Your task to perform on an android device: turn on priority inbox in the gmail app Image 0: 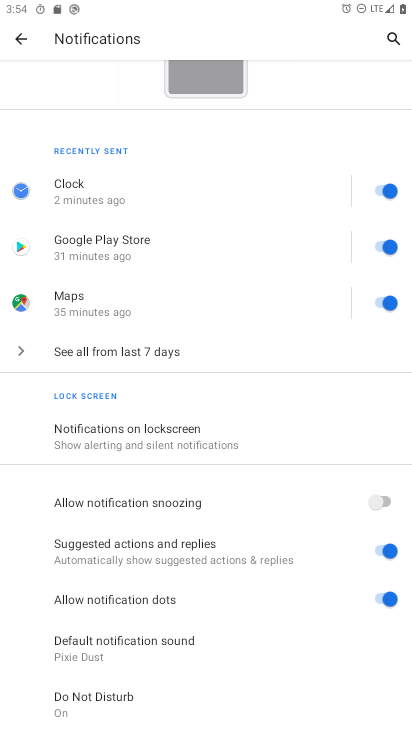
Step 0: press home button
Your task to perform on an android device: turn on priority inbox in the gmail app Image 1: 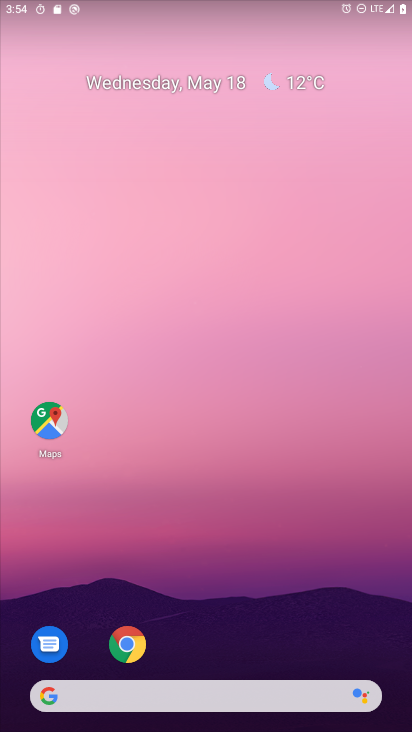
Step 1: drag from (393, 675) to (370, 139)
Your task to perform on an android device: turn on priority inbox in the gmail app Image 2: 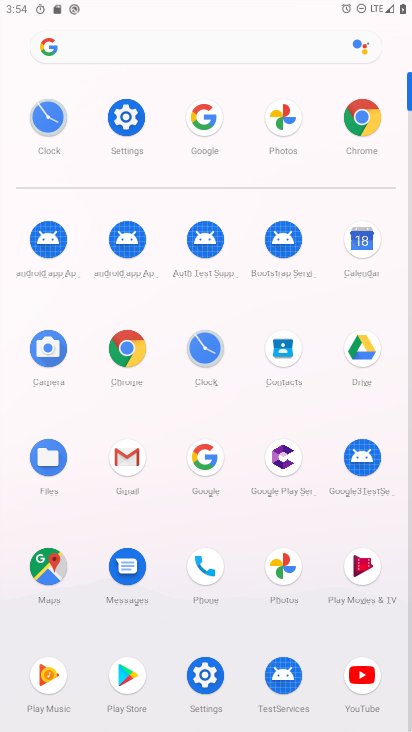
Step 2: click (128, 459)
Your task to perform on an android device: turn on priority inbox in the gmail app Image 3: 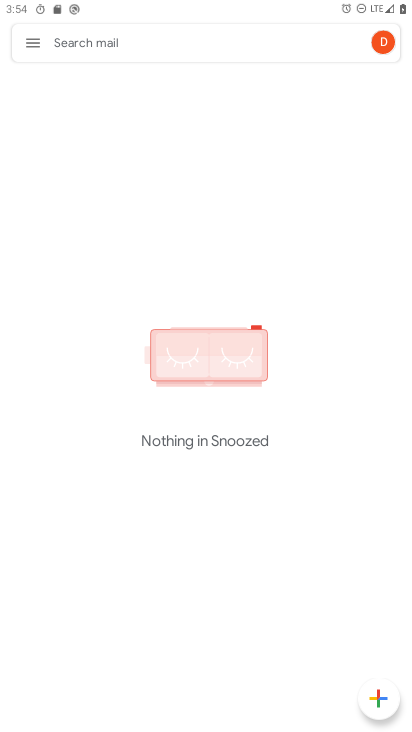
Step 3: click (37, 42)
Your task to perform on an android device: turn on priority inbox in the gmail app Image 4: 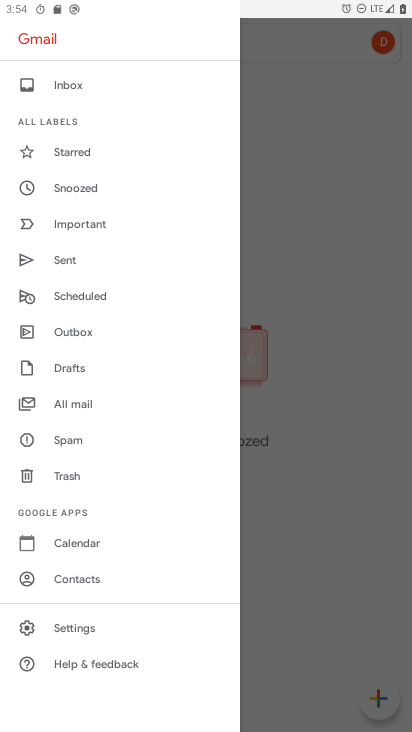
Step 4: click (71, 624)
Your task to perform on an android device: turn on priority inbox in the gmail app Image 5: 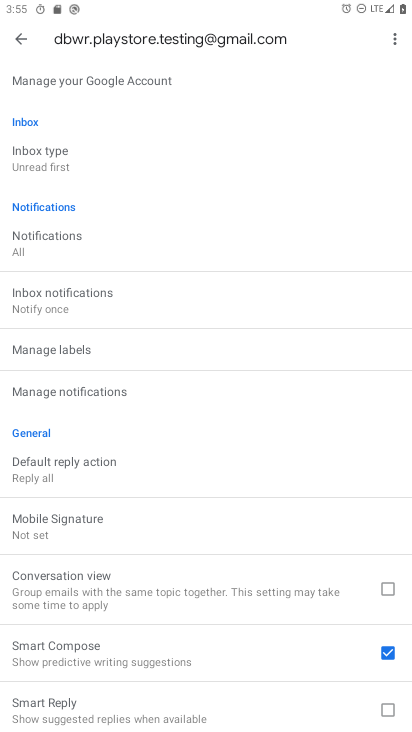
Step 5: click (27, 156)
Your task to perform on an android device: turn on priority inbox in the gmail app Image 6: 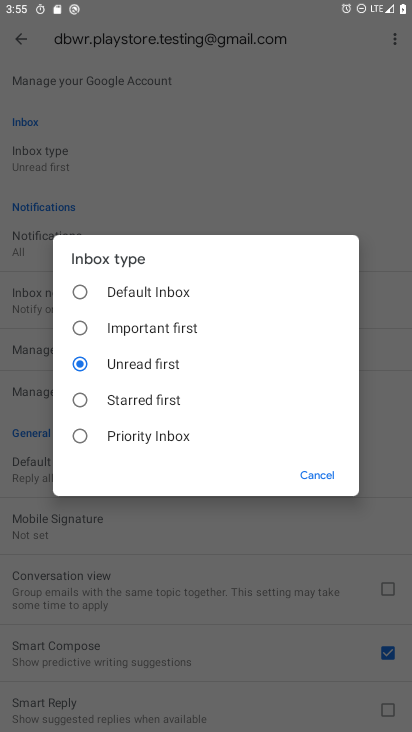
Step 6: click (123, 435)
Your task to perform on an android device: turn on priority inbox in the gmail app Image 7: 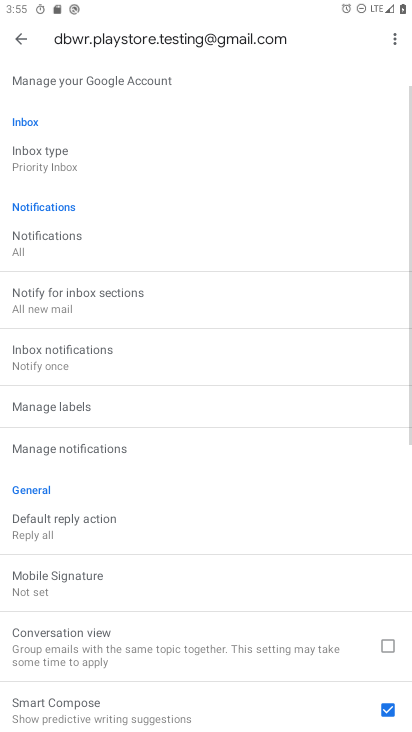
Step 7: task complete